Your task to perform on an android device: Show me the alarms in the clock app Image 0: 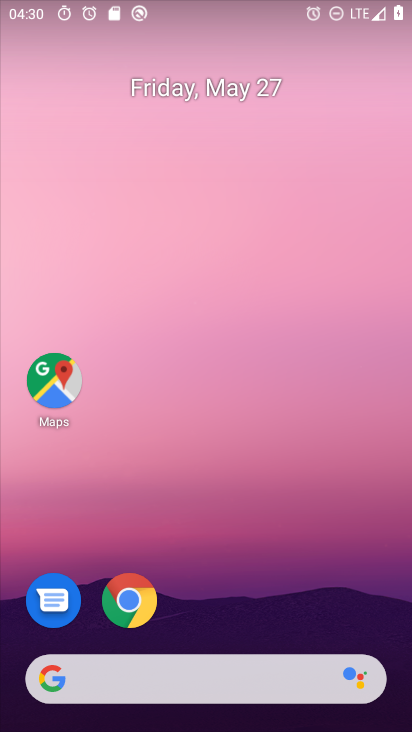
Step 0: drag from (244, 686) to (223, 135)
Your task to perform on an android device: Show me the alarms in the clock app Image 1: 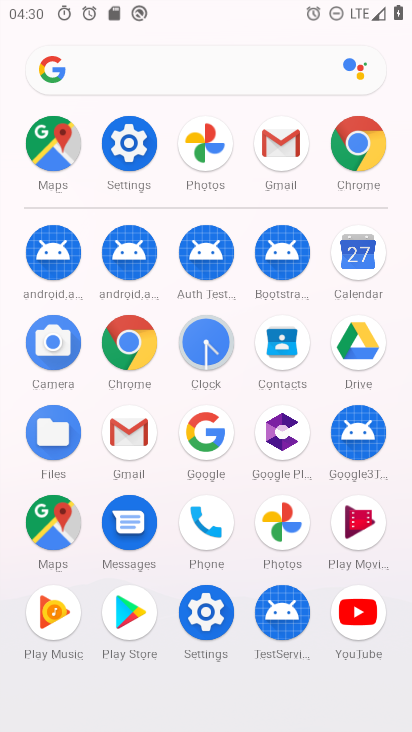
Step 1: click (205, 345)
Your task to perform on an android device: Show me the alarms in the clock app Image 2: 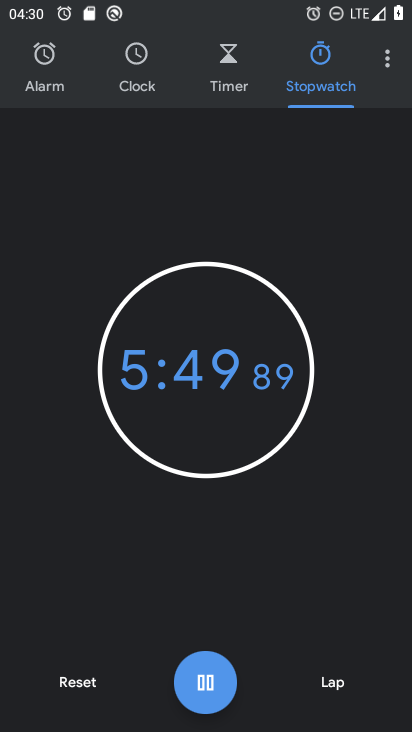
Step 2: click (43, 66)
Your task to perform on an android device: Show me the alarms in the clock app Image 3: 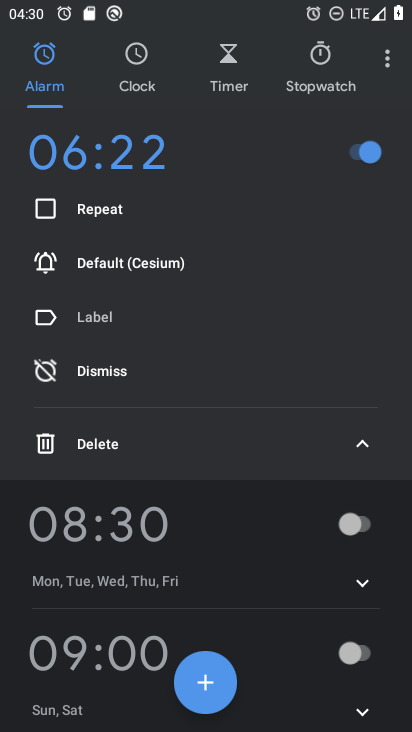
Step 3: task complete